Your task to perform on an android device: turn on location history Image 0: 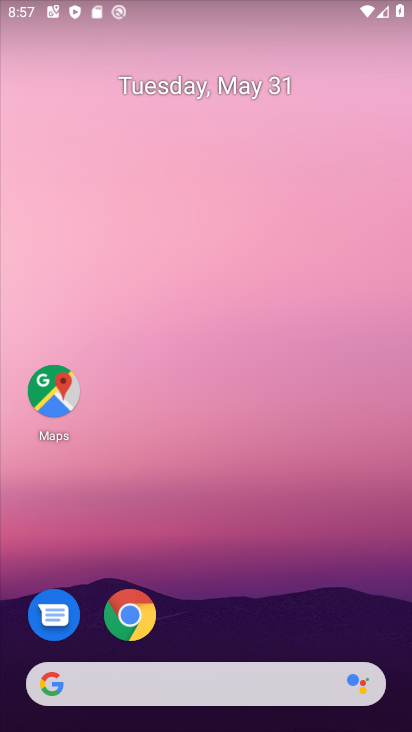
Step 0: click (51, 389)
Your task to perform on an android device: turn on location history Image 1: 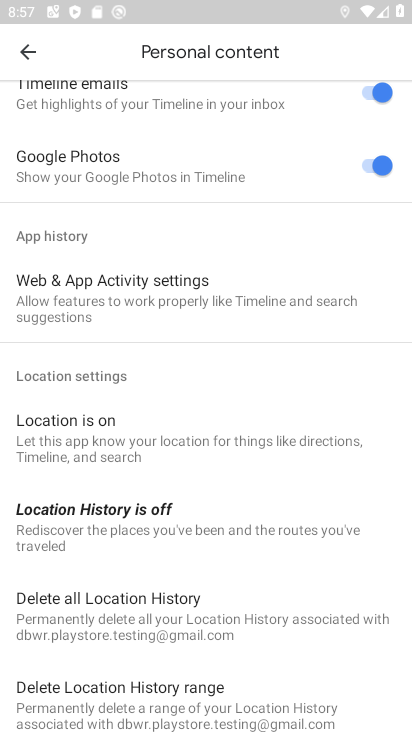
Step 1: click (98, 525)
Your task to perform on an android device: turn on location history Image 2: 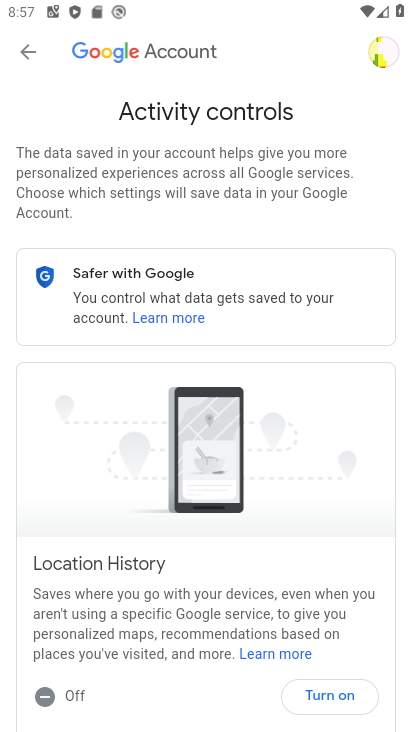
Step 2: click (329, 695)
Your task to perform on an android device: turn on location history Image 3: 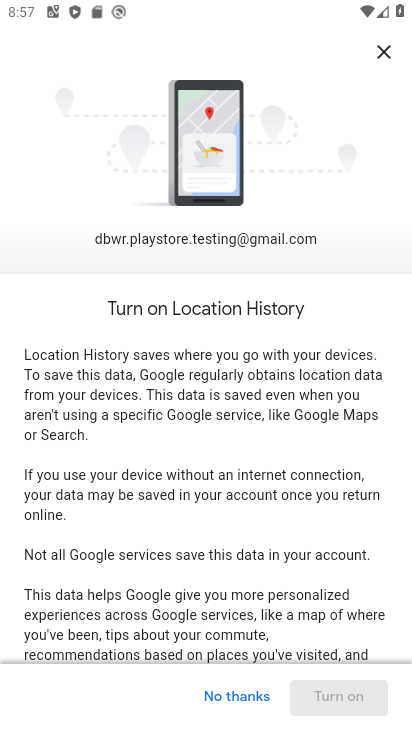
Step 3: drag from (308, 634) to (257, 256)
Your task to perform on an android device: turn on location history Image 4: 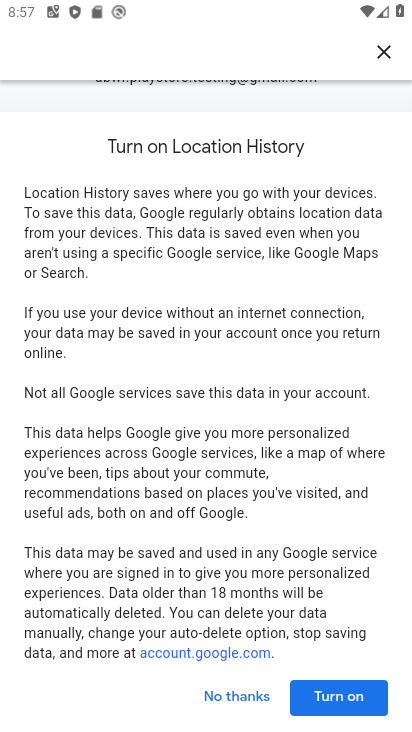
Step 4: click (336, 702)
Your task to perform on an android device: turn on location history Image 5: 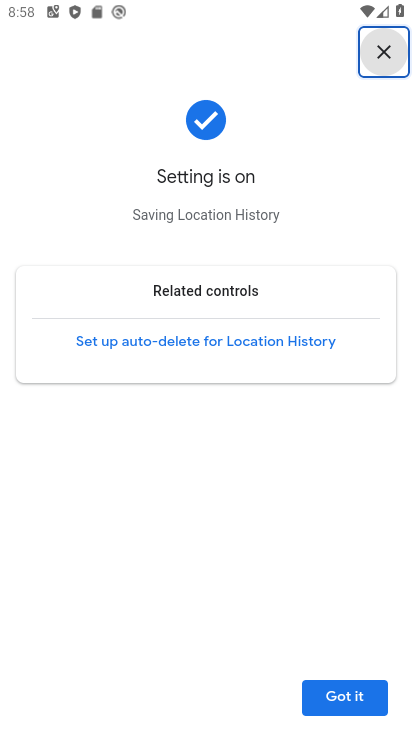
Step 5: click (343, 694)
Your task to perform on an android device: turn on location history Image 6: 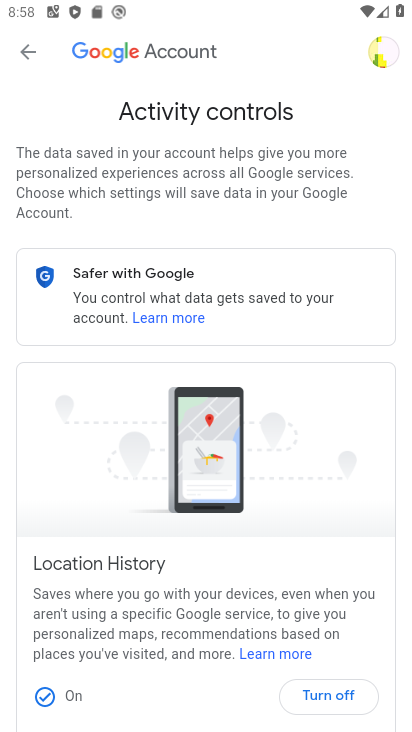
Step 6: task complete